Your task to perform on an android device: open app "Pandora - Music & Podcasts" (install if not already installed), go to login, and select forgot password Image 0: 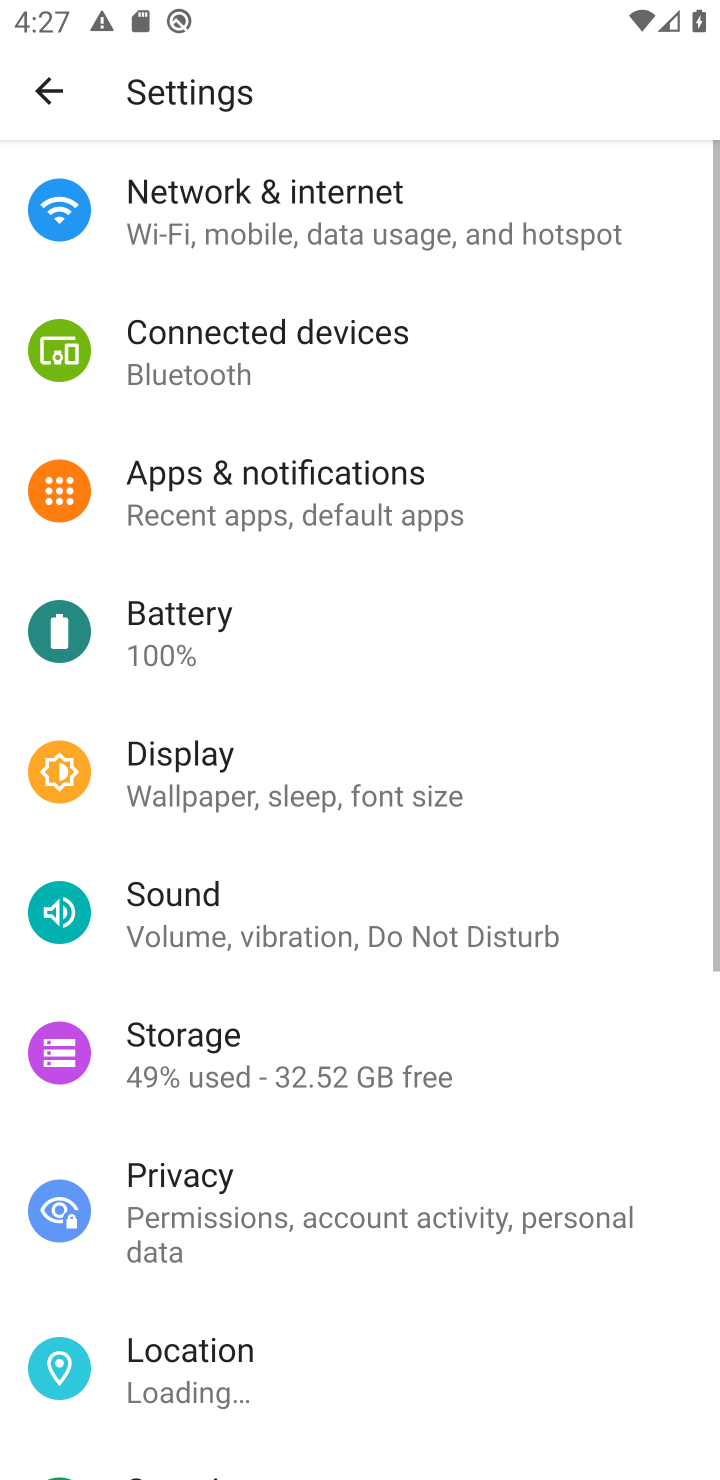
Step 0: press back button
Your task to perform on an android device: open app "Pandora - Music & Podcasts" (install if not already installed), go to login, and select forgot password Image 1: 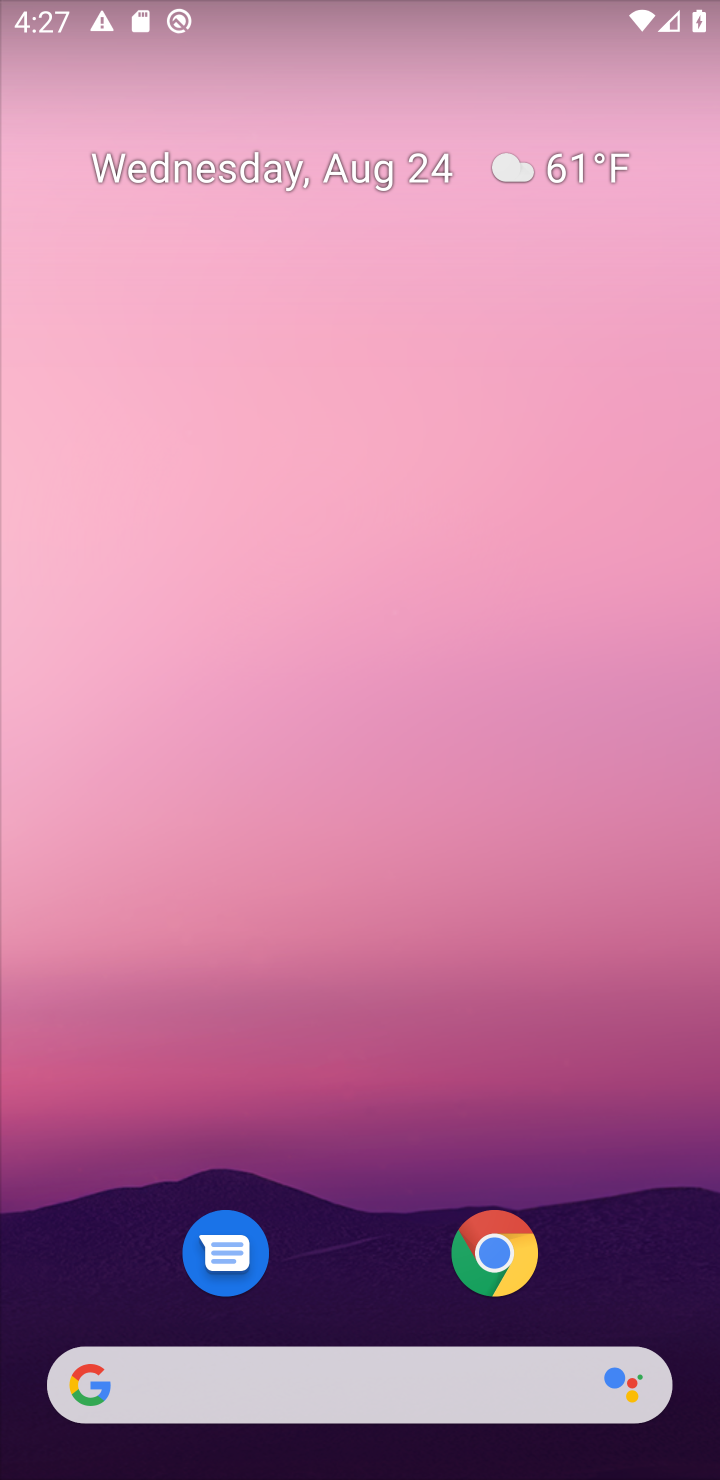
Step 1: drag from (315, 1252) to (387, 226)
Your task to perform on an android device: open app "Pandora - Music & Podcasts" (install if not already installed), go to login, and select forgot password Image 2: 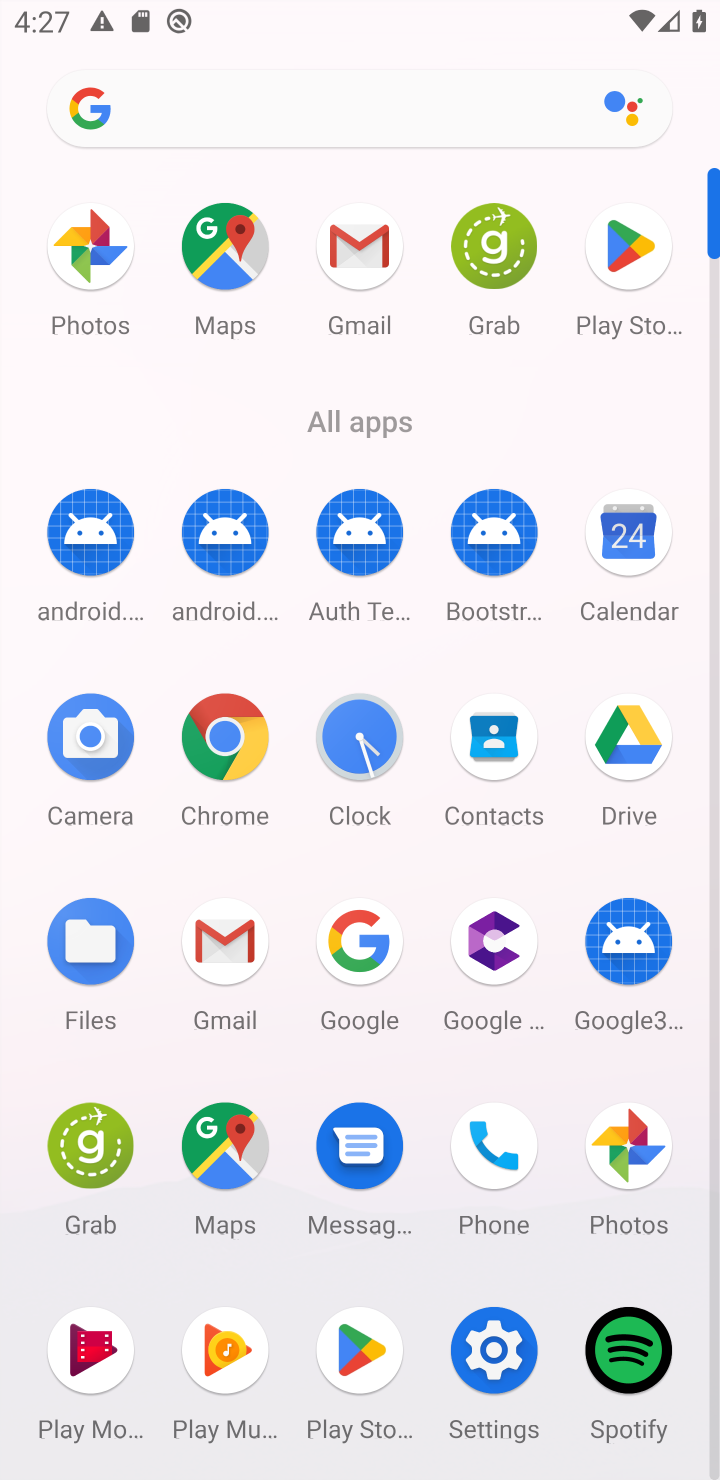
Step 2: click (626, 243)
Your task to perform on an android device: open app "Pandora - Music & Podcasts" (install if not already installed), go to login, and select forgot password Image 3: 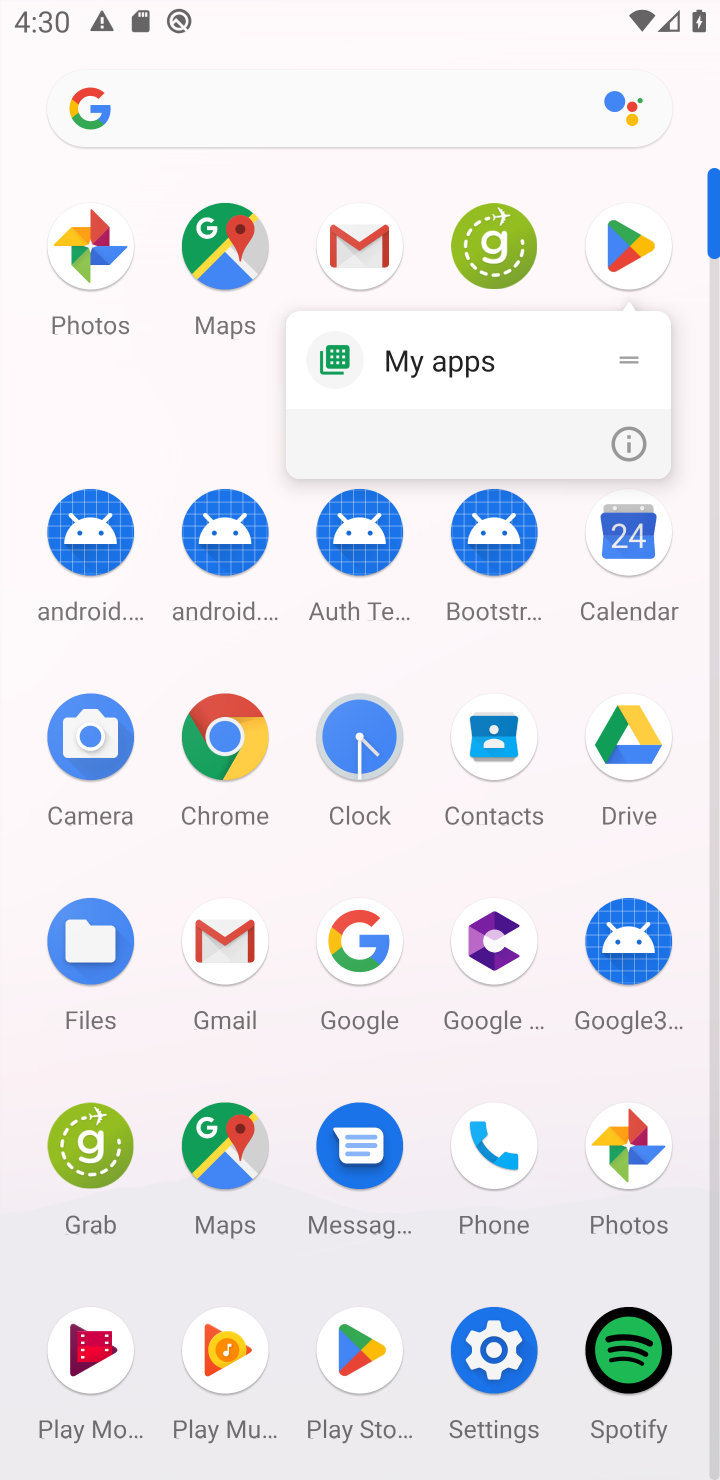
Step 3: click (631, 240)
Your task to perform on an android device: open app "Pandora - Music & Podcasts" (install if not already installed), go to login, and select forgot password Image 4: 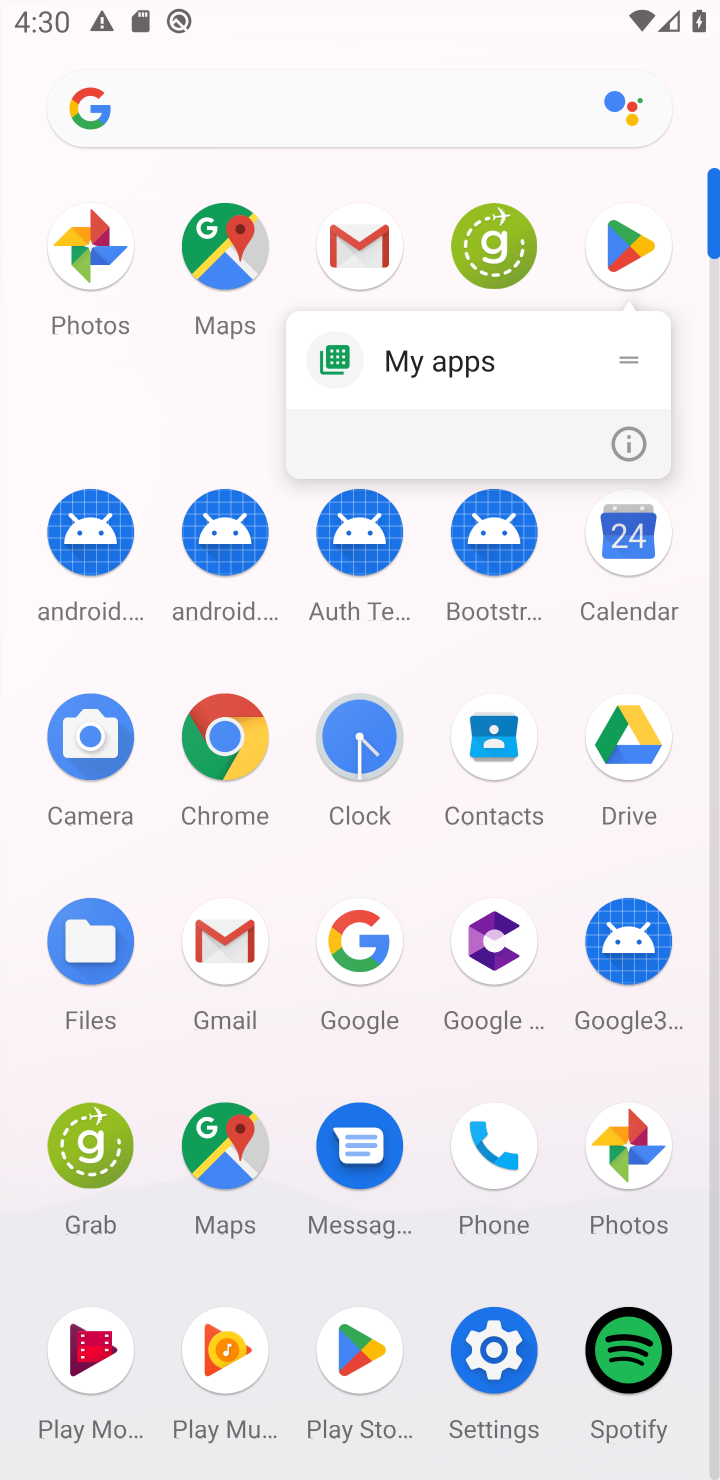
Step 4: click (645, 249)
Your task to perform on an android device: open app "Pandora - Music & Podcasts" (install if not already installed), go to login, and select forgot password Image 5: 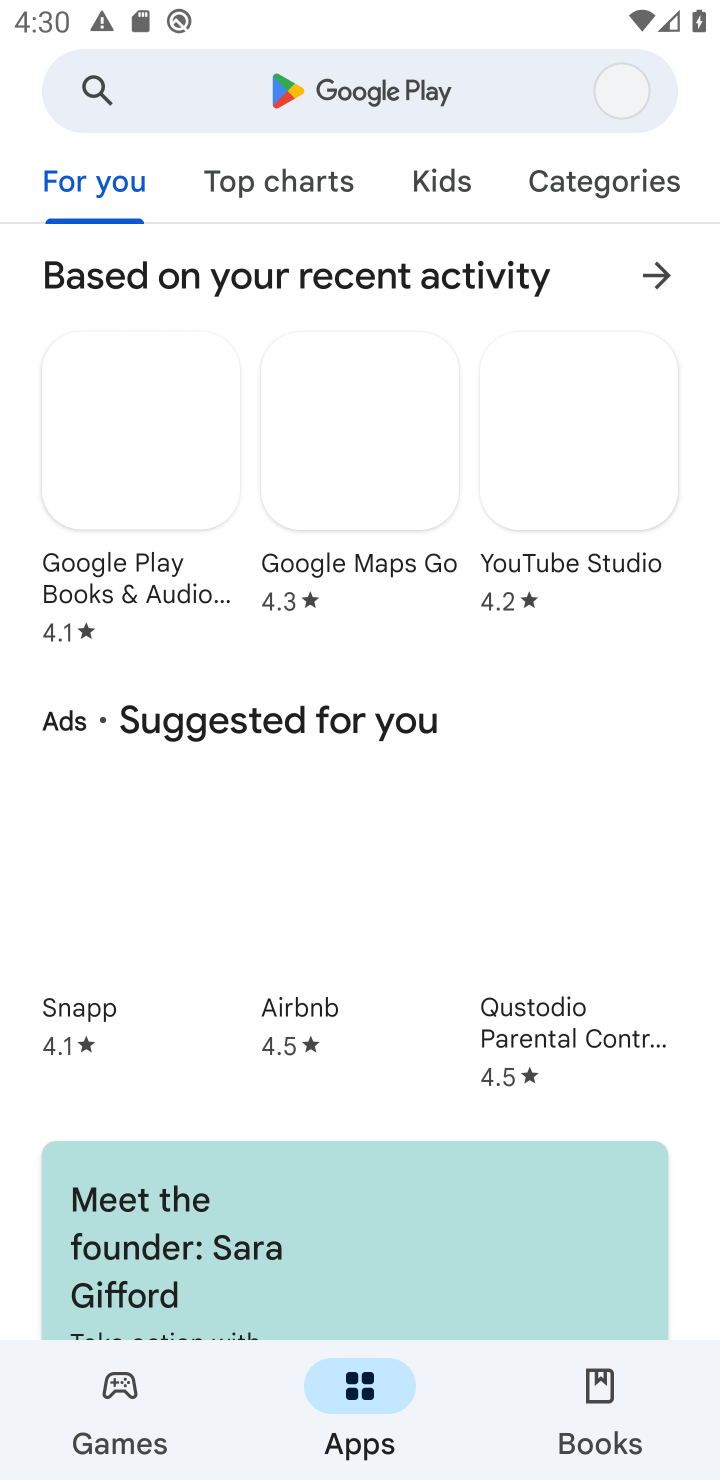
Step 5: click (357, 81)
Your task to perform on an android device: open app "Pandora - Music & Podcasts" (install if not already installed), go to login, and select forgot password Image 6: 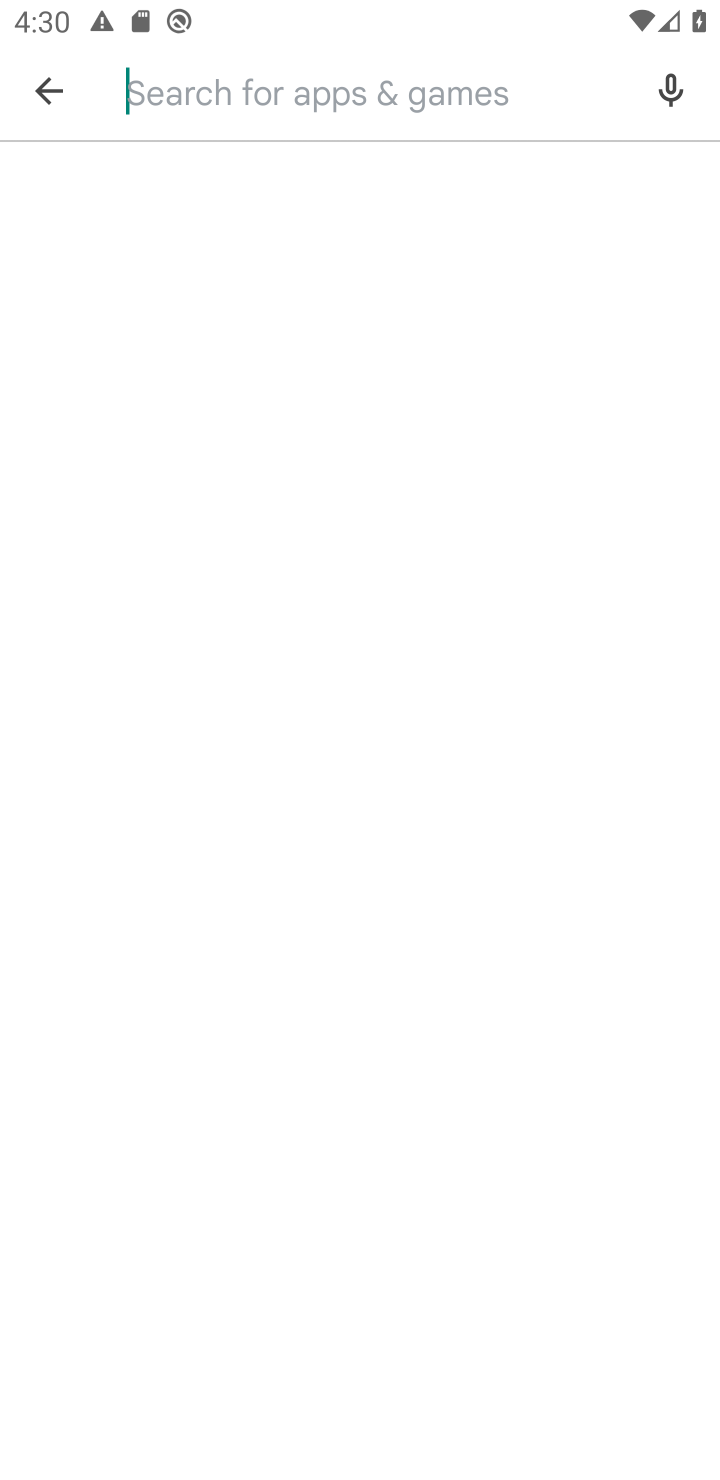
Step 6: click (348, 90)
Your task to perform on an android device: open app "Pandora - Music & Podcasts" (install if not already installed), go to login, and select forgot password Image 7: 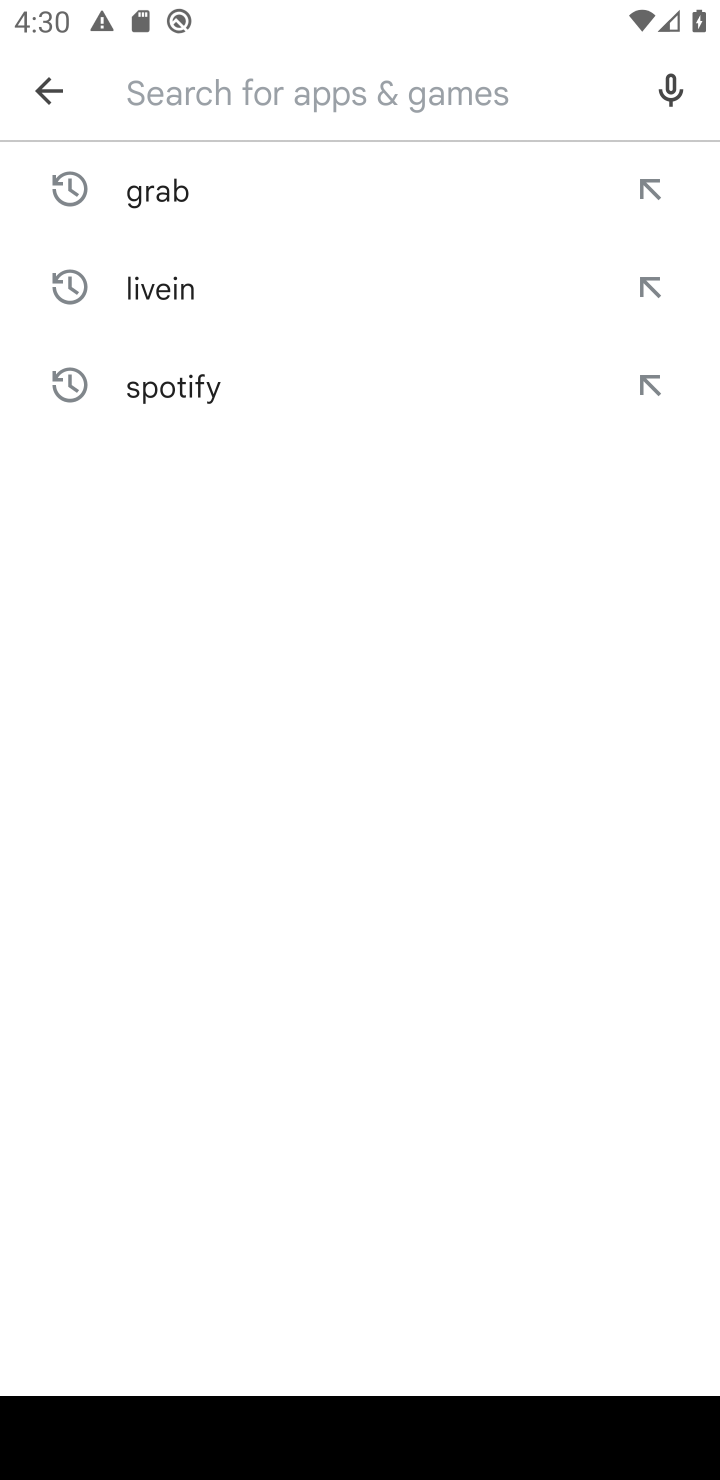
Step 7: type "pandora"
Your task to perform on an android device: open app "Pandora - Music & Podcasts" (install if not already installed), go to login, and select forgot password Image 8: 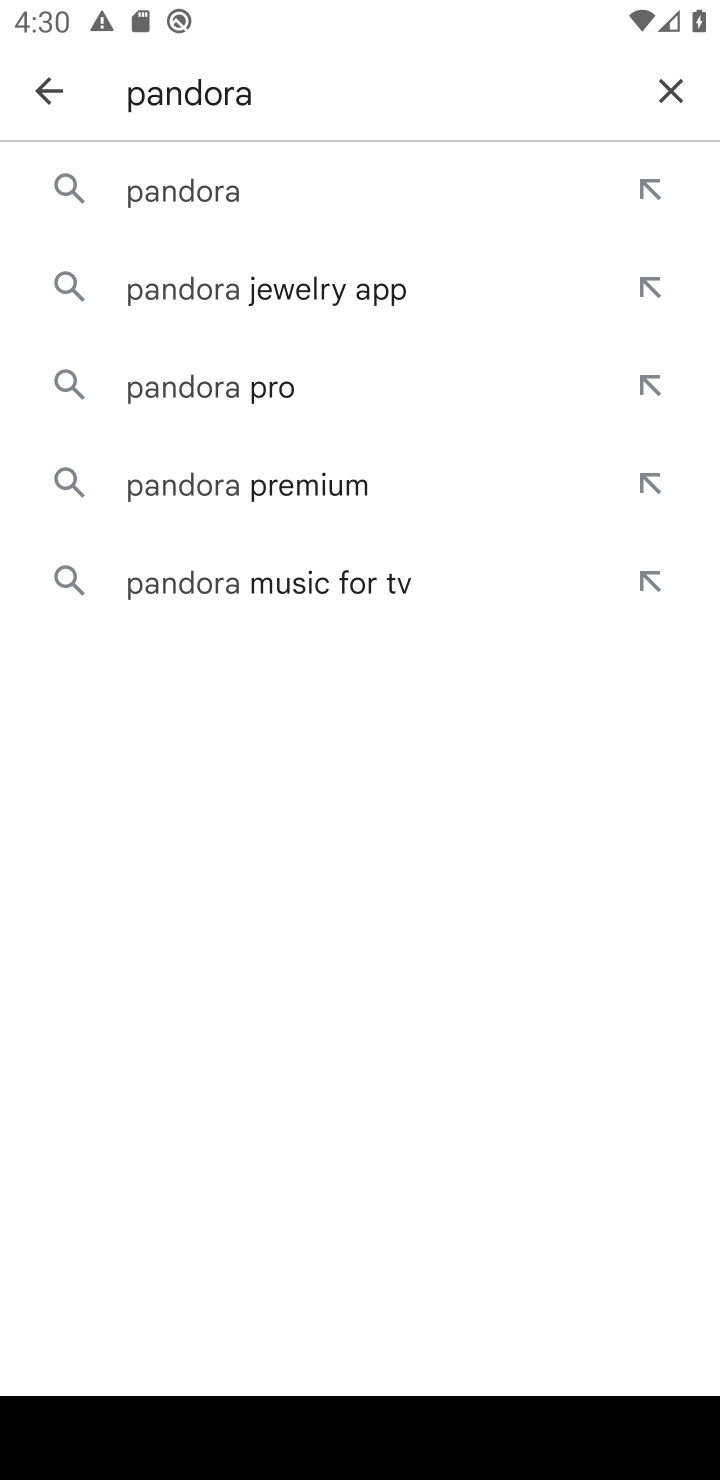
Step 8: click (155, 180)
Your task to perform on an android device: open app "Pandora - Music & Podcasts" (install if not already installed), go to login, and select forgot password Image 9: 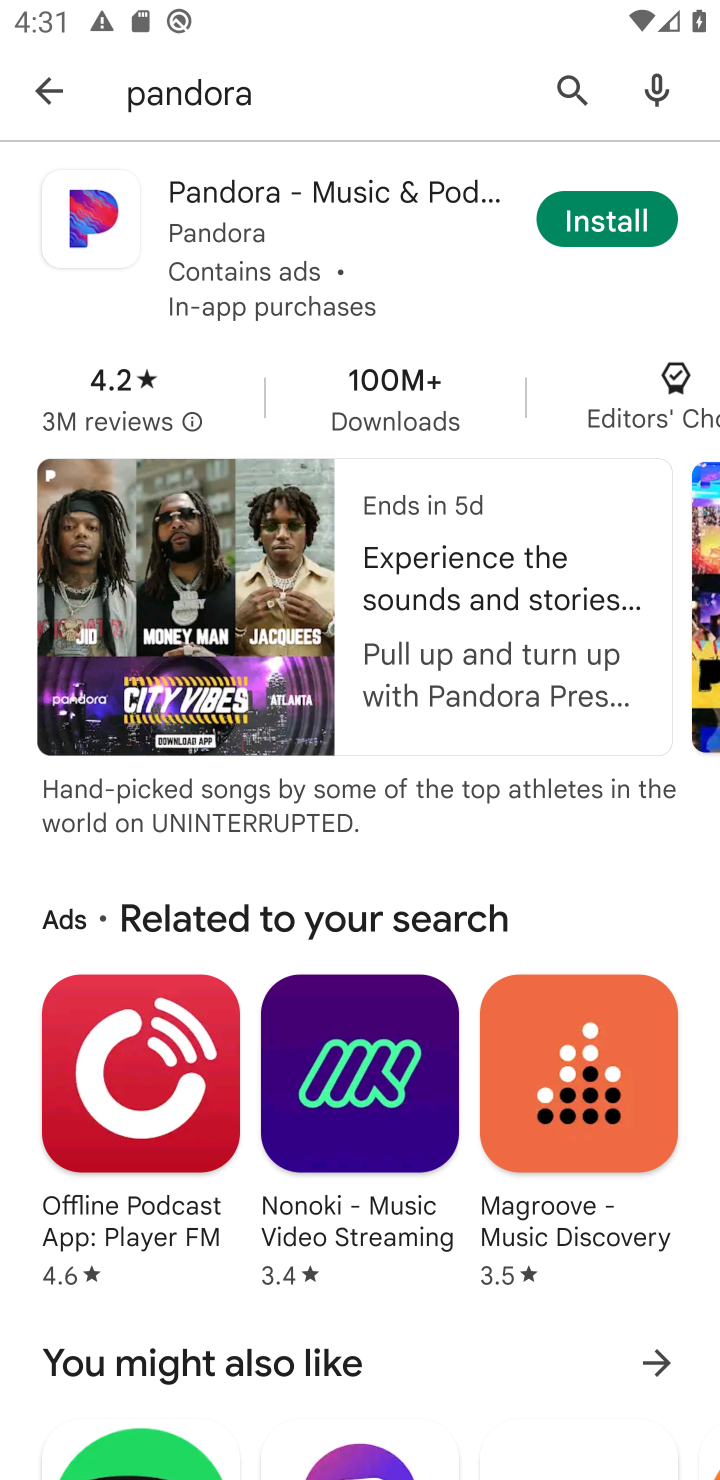
Step 9: click (627, 197)
Your task to perform on an android device: open app "Pandora - Music & Podcasts" (install if not already installed), go to login, and select forgot password Image 10: 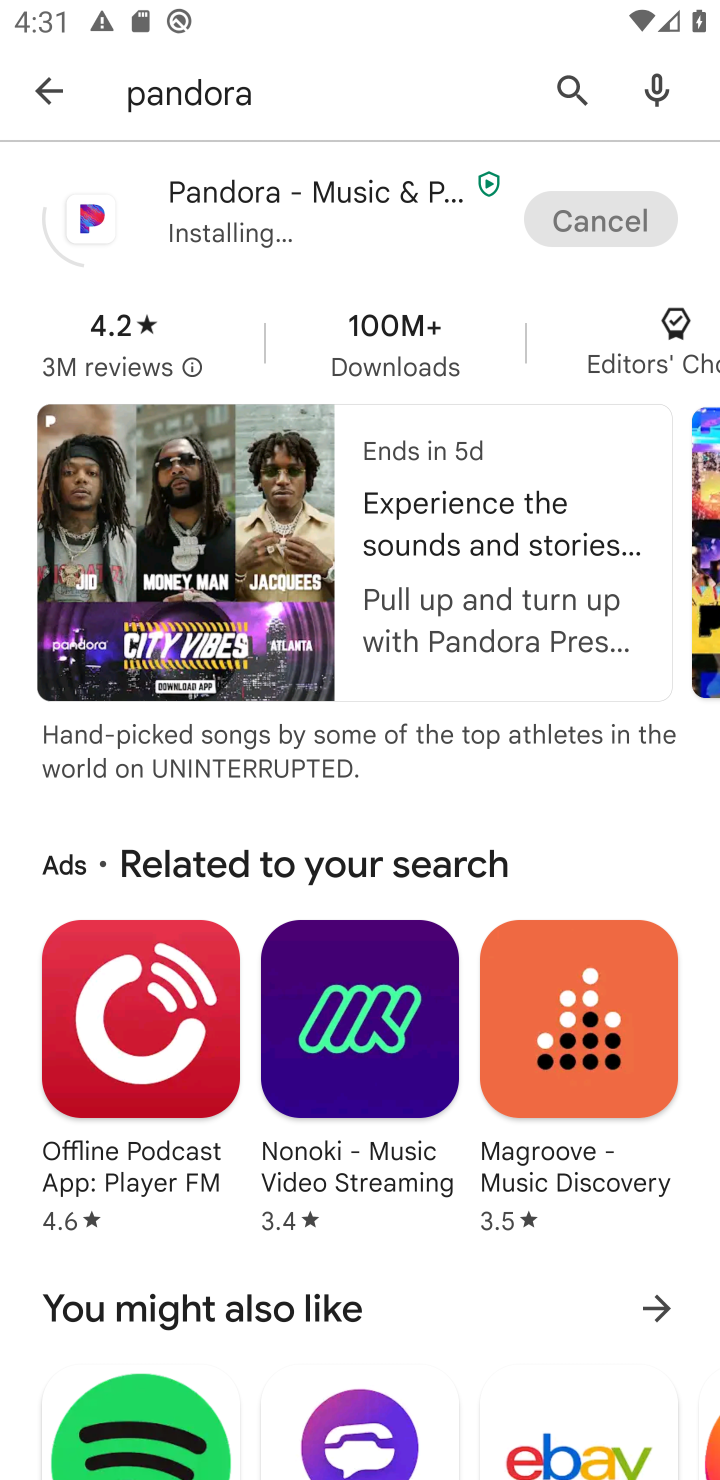
Step 10: press back button
Your task to perform on an android device: open app "Pandora - Music & Podcasts" (install if not already installed), go to login, and select forgot password Image 11: 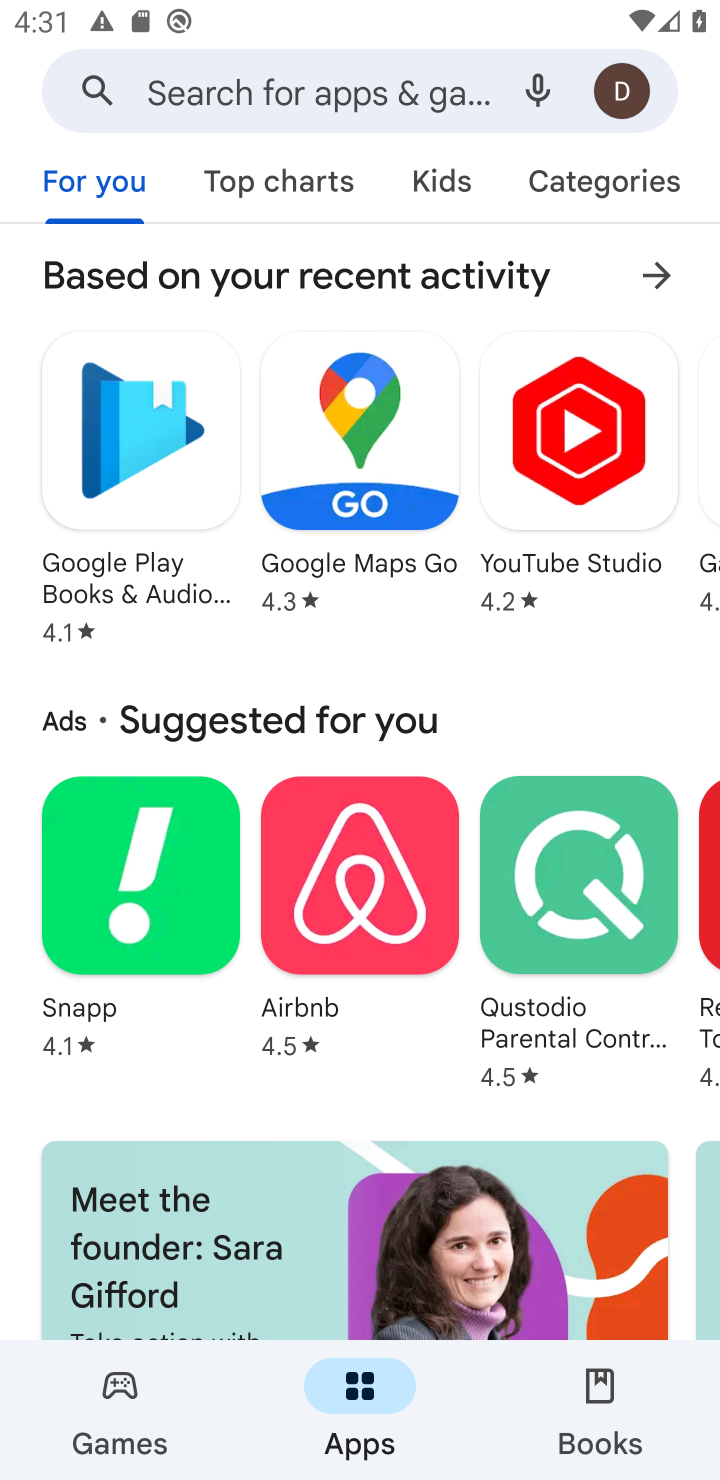
Step 11: click (319, 90)
Your task to perform on an android device: open app "Pandora - Music & Podcasts" (install if not already installed), go to login, and select forgot password Image 12: 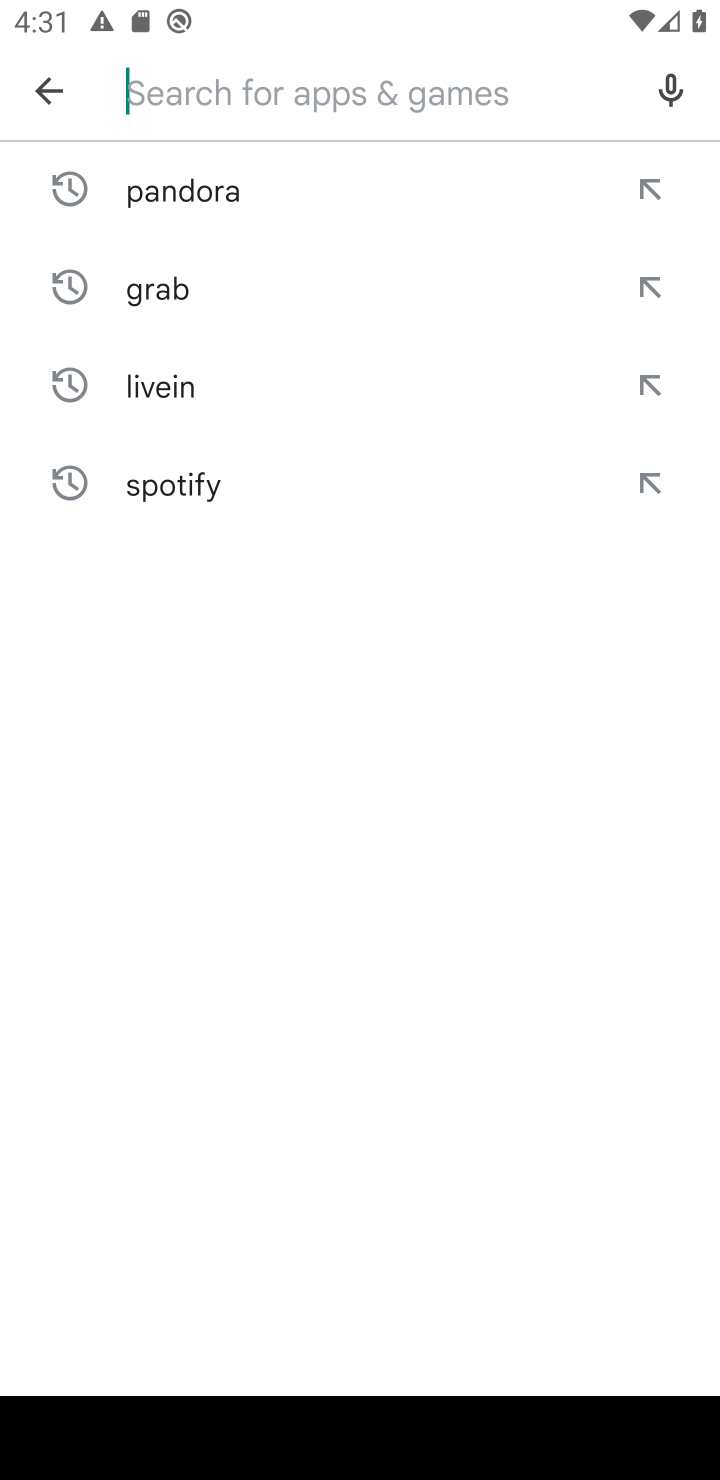
Step 12: click (209, 175)
Your task to perform on an android device: open app "Pandora - Music & Podcasts" (install if not already installed), go to login, and select forgot password Image 13: 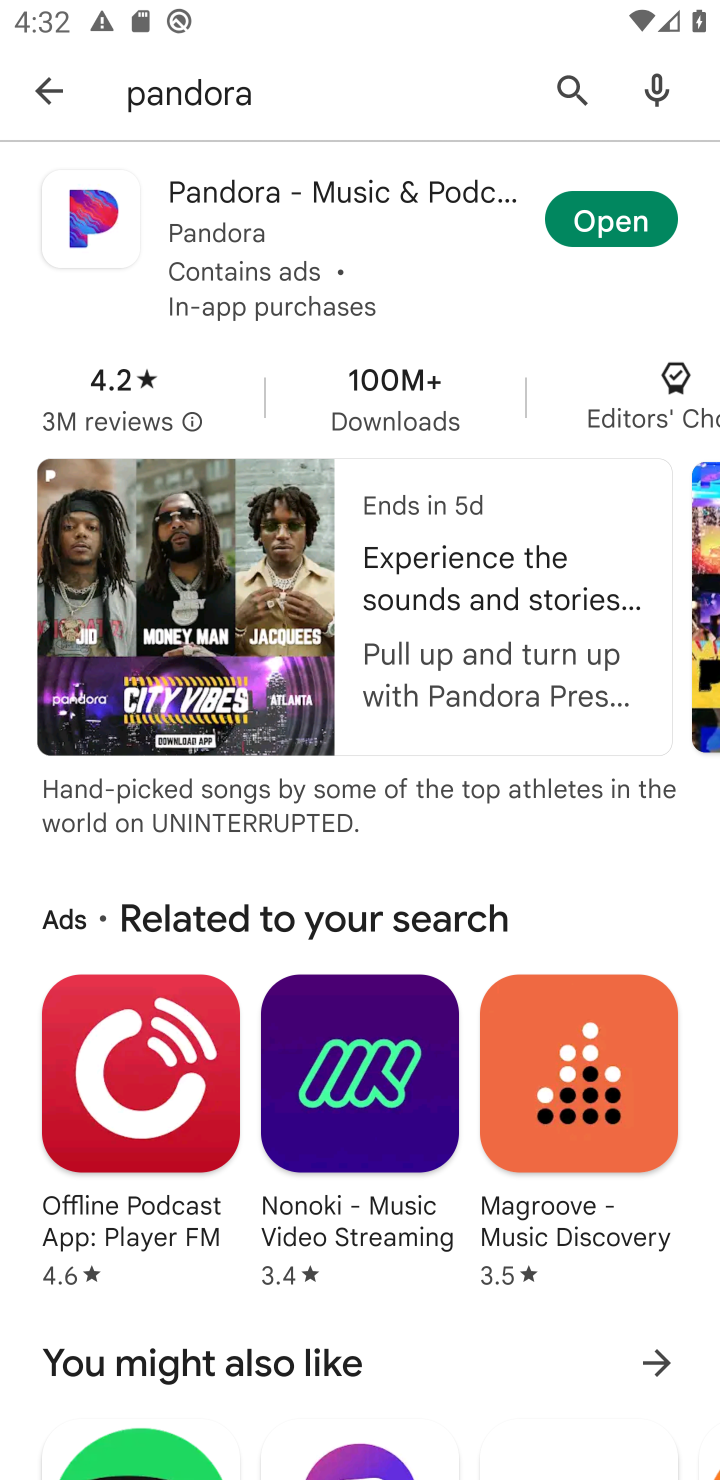
Step 13: click (595, 232)
Your task to perform on an android device: open app "Pandora - Music & Podcasts" (install if not already installed), go to login, and select forgot password Image 14: 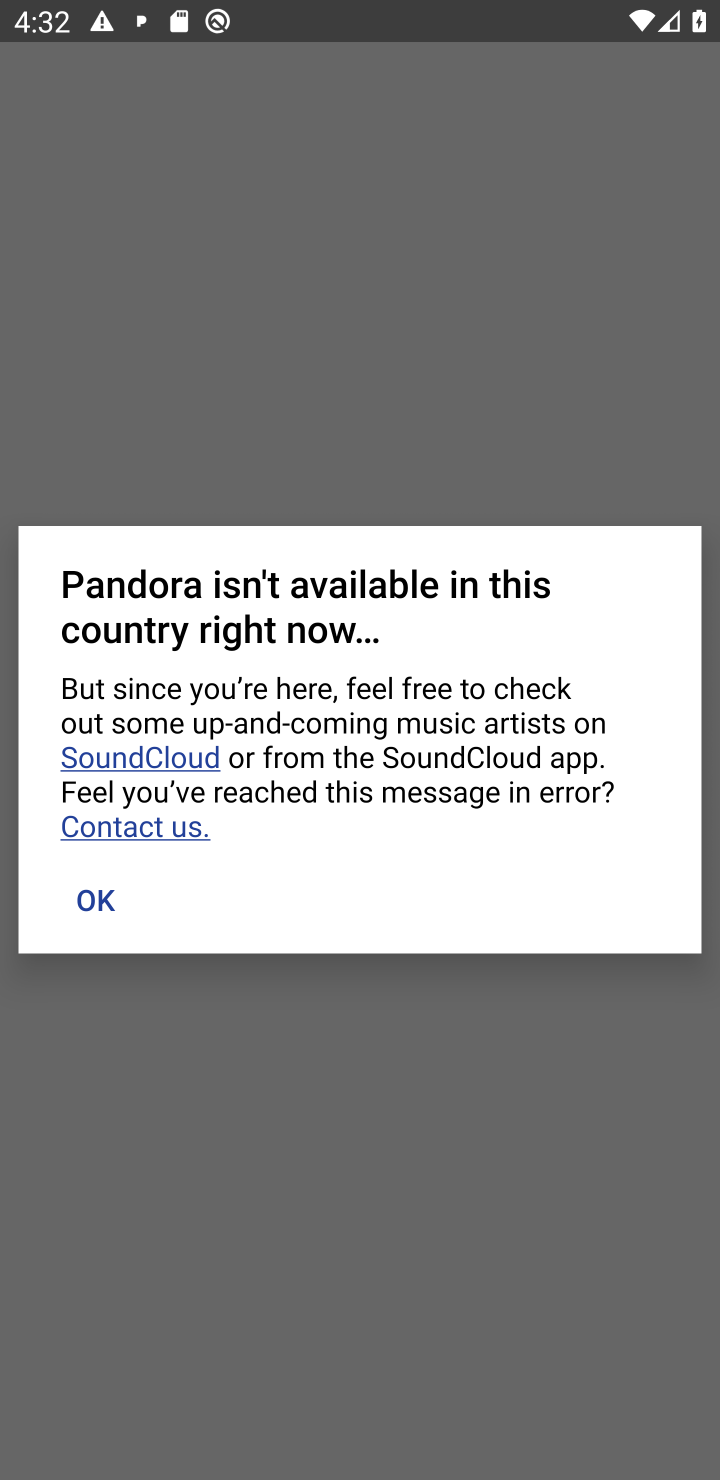
Step 14: click (104, 886)
Your task to perform on an android device: open app "Pandora - Music & Podcasts" (install if not already installed), go to login, and select forgot password Image 15: 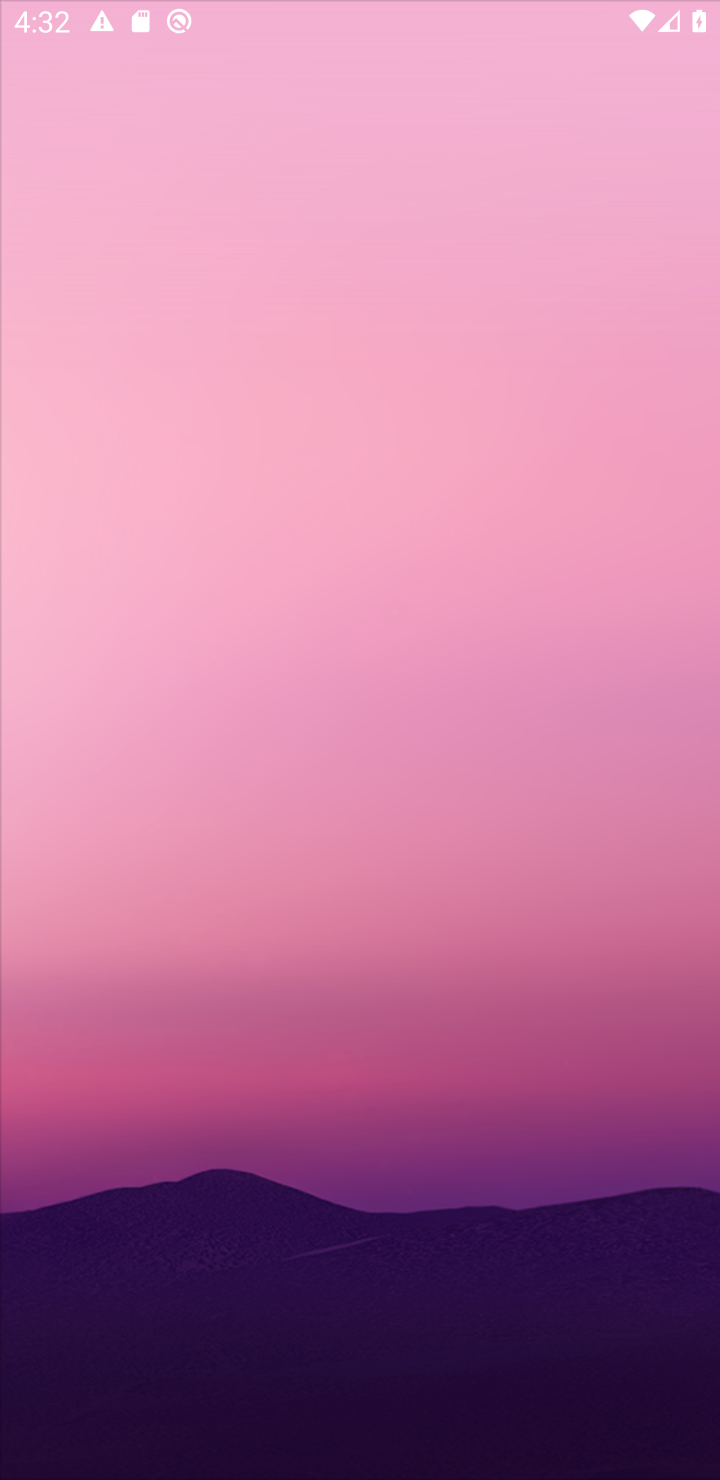
Step 15: task complete